Your task to perform on an android device: check storage Image 0: 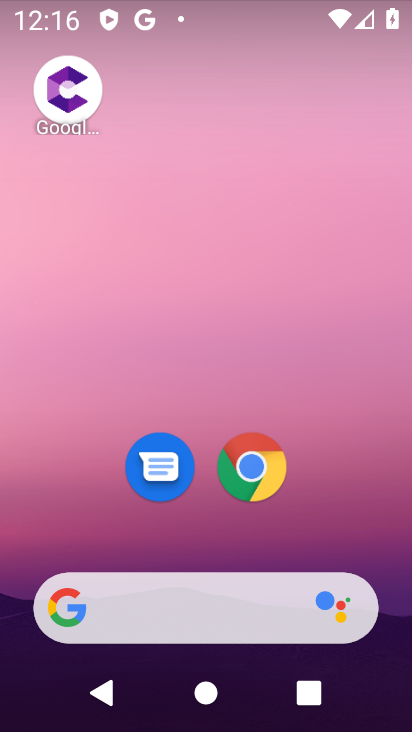
Step 0: drag from (383, 599) to (320, 51)
Your task to perform on an android device: check storage Image 1: 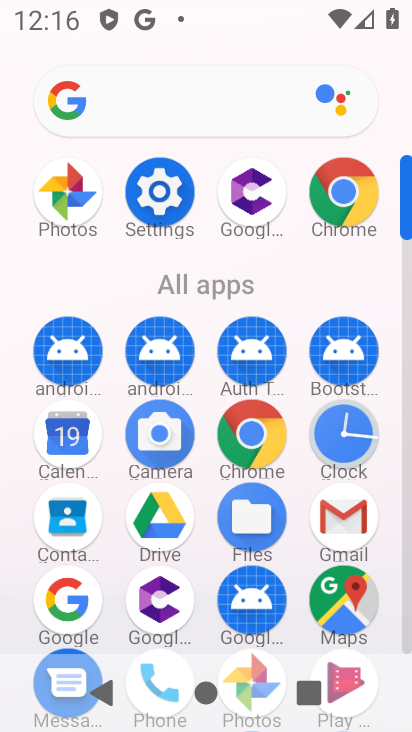
Step 1: click (156, 189)
Your task to perform on an android device: check storage Image 2: 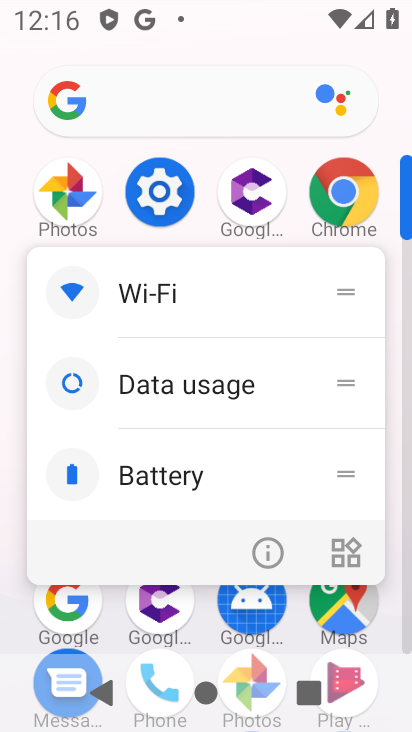
Step 2: click (156, 189)
Your task to perform on an android device: check storage Image 3: 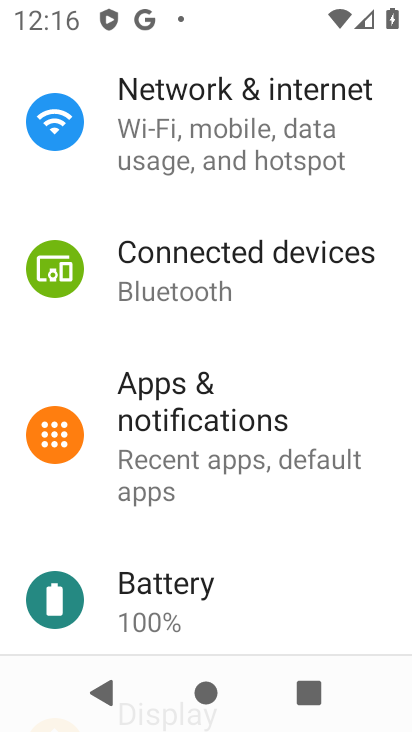
Step 3: drag from (327, 487) to (307, 98)
Your task to perform on an android device: check storage Image 4: 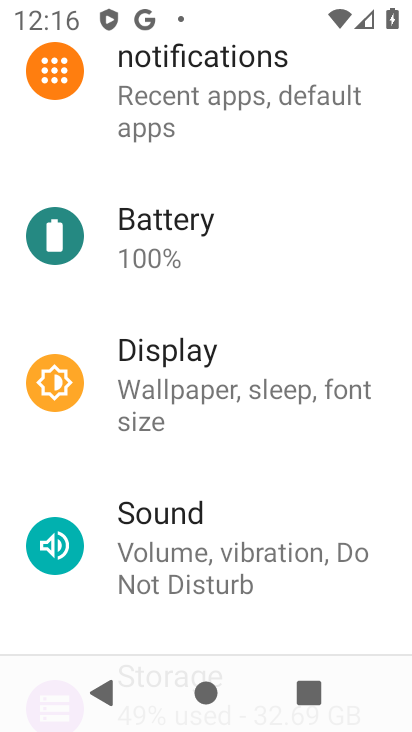
Step 4: drag from (278, 485) to (294, 201)
Your task to perform on an android device: check storage Image 5: 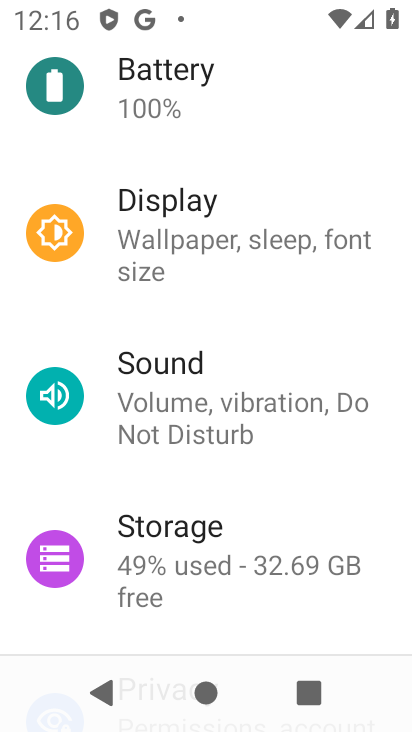
Step 5: click (200, 537)
Your task to perform on an android device: check storage Image 6: 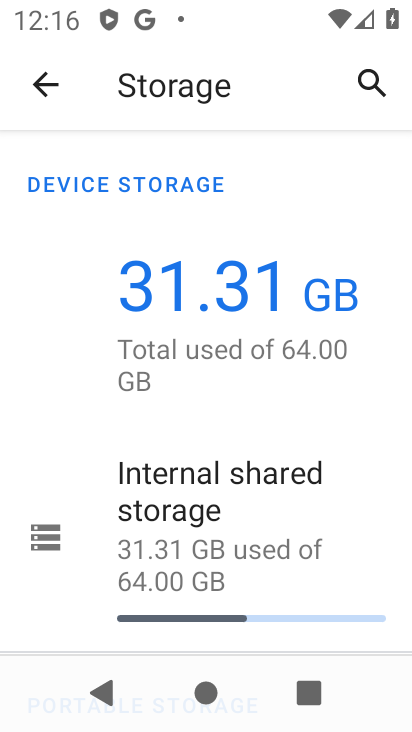
Step 6: task complete